Your task to perform on an android device: Play the new Demi Lovato video on YouTube Image 0: 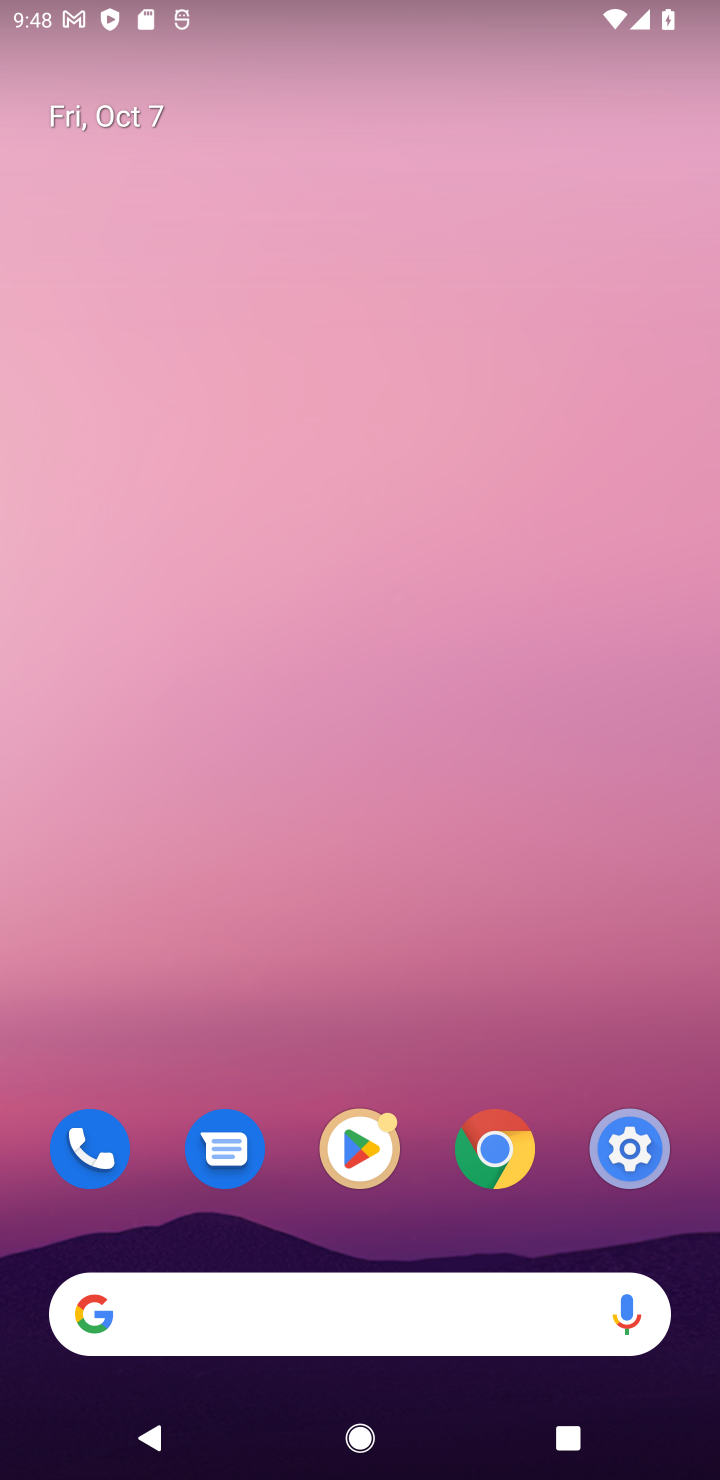
Step 0: drag from (410, 1223) to (340, 287)
Your task to perform on an android device: Play the new Demi Lovato video on YouTube Image 1: 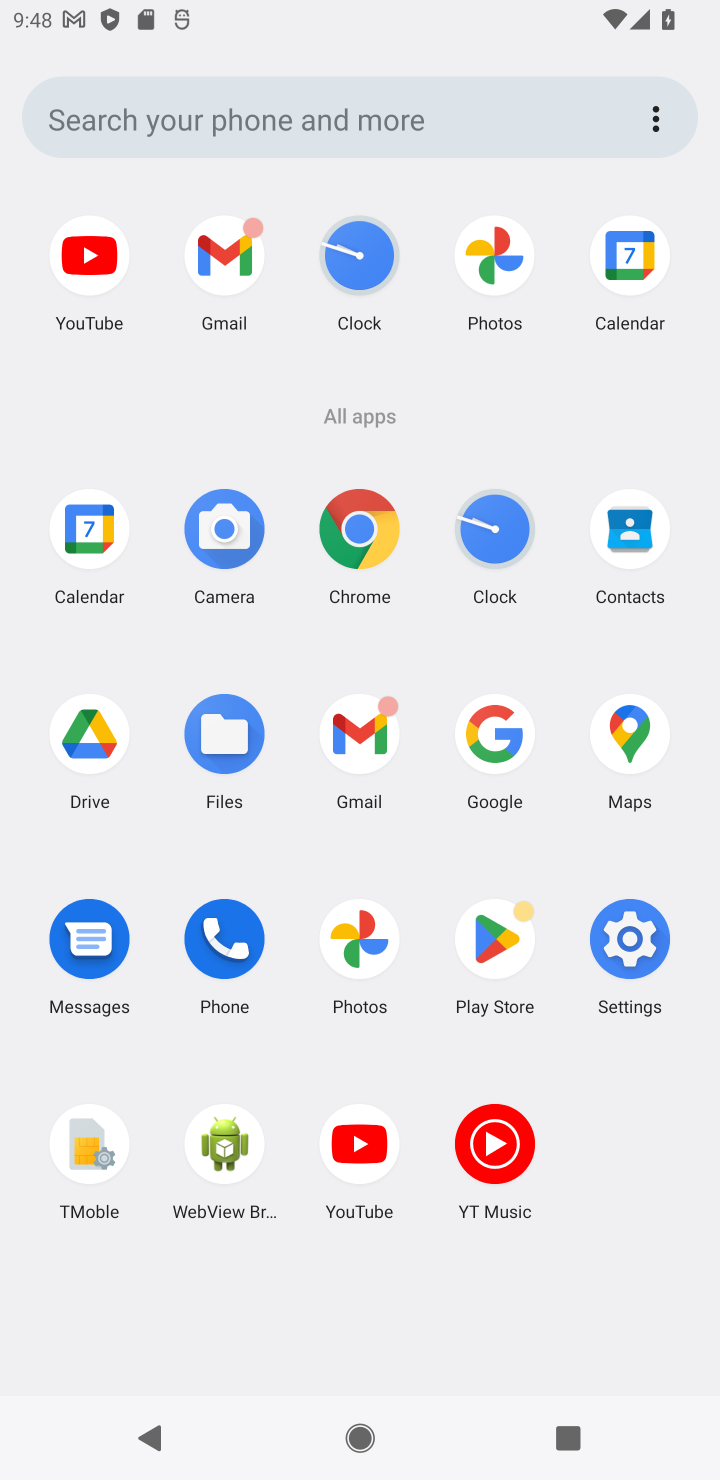
Step 1: click (89, 281)
Your task to perform on an android device: Play the new Demi Lovato video on YouTube Image 2: 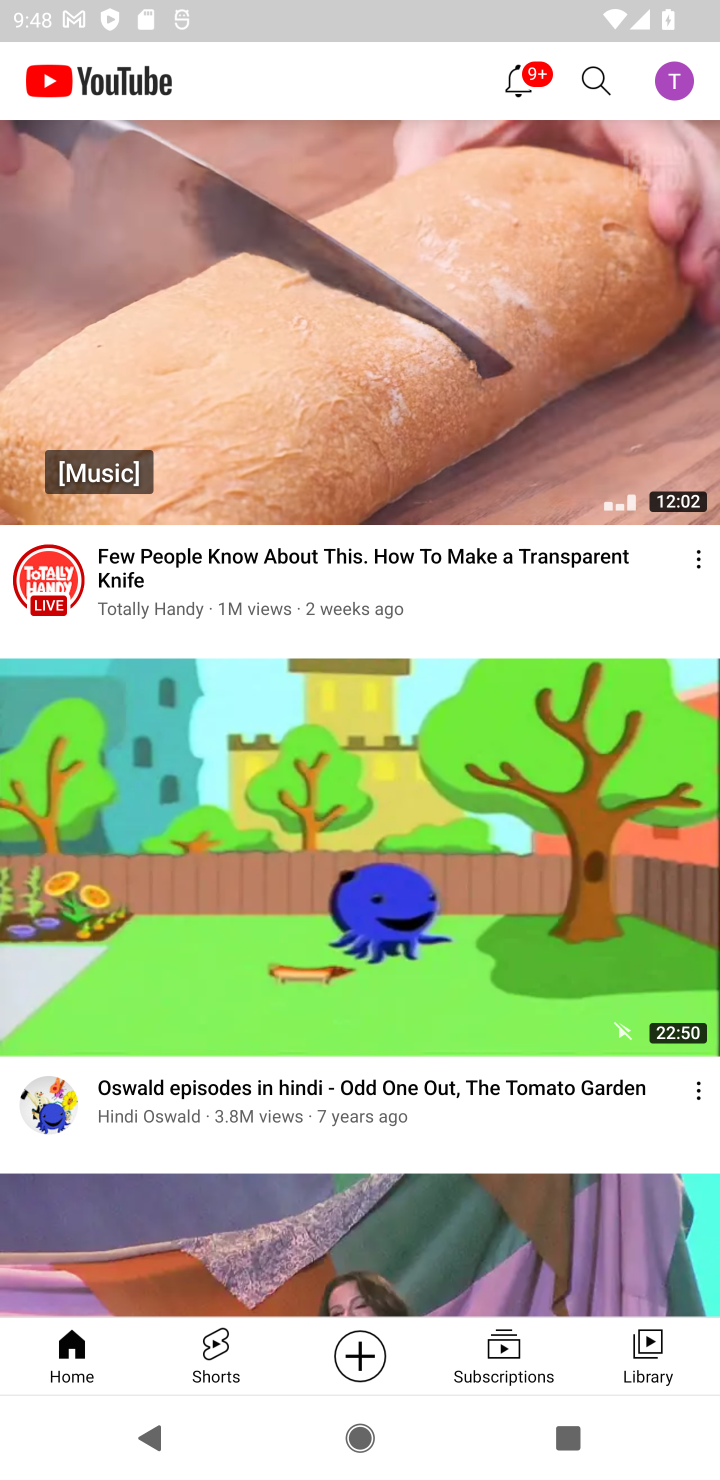
Step 2: click (582, 105)
Your task to perform on an android device: Play the new Demi Lovato video on YouTube Image 3: 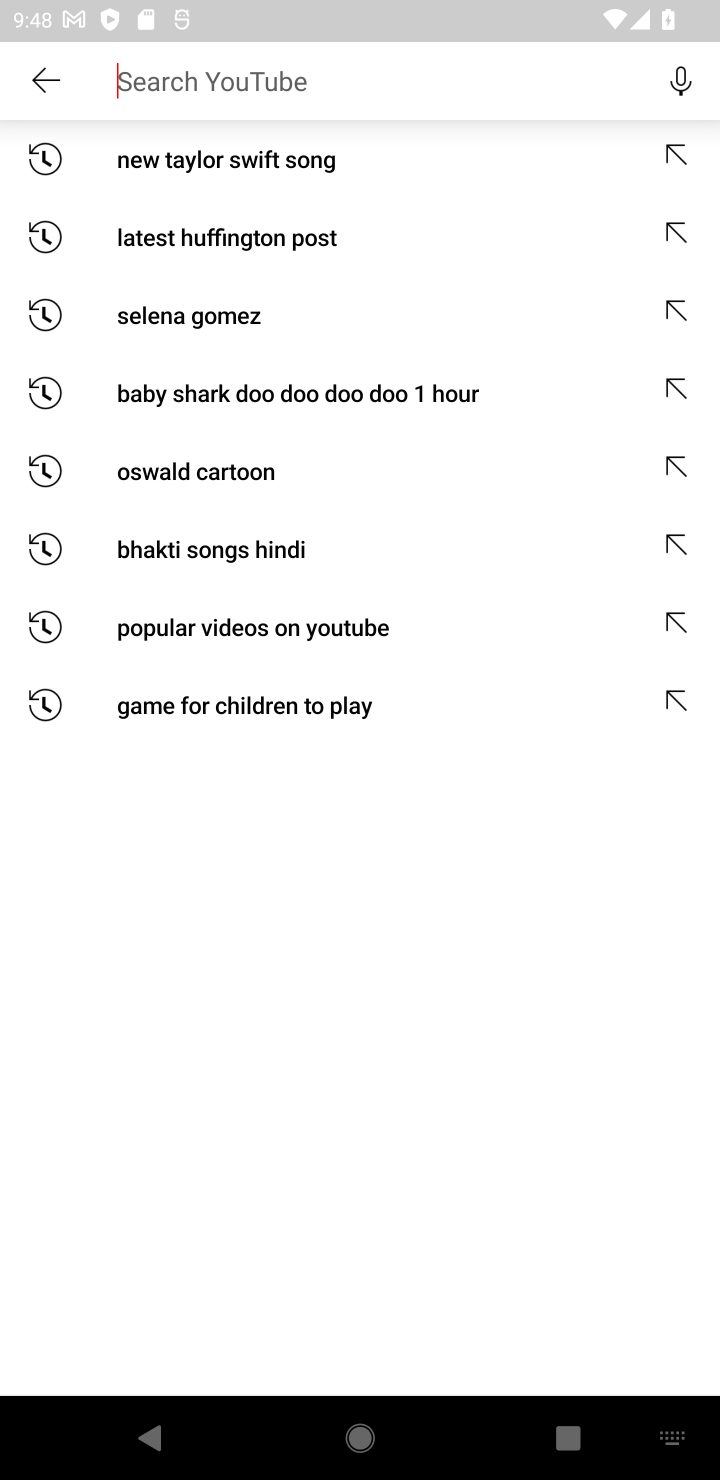
Step 3: type "Demi Lovato"
Your task to perform on an android device: Play the new Demi Lovato video on YouTube Image 4: 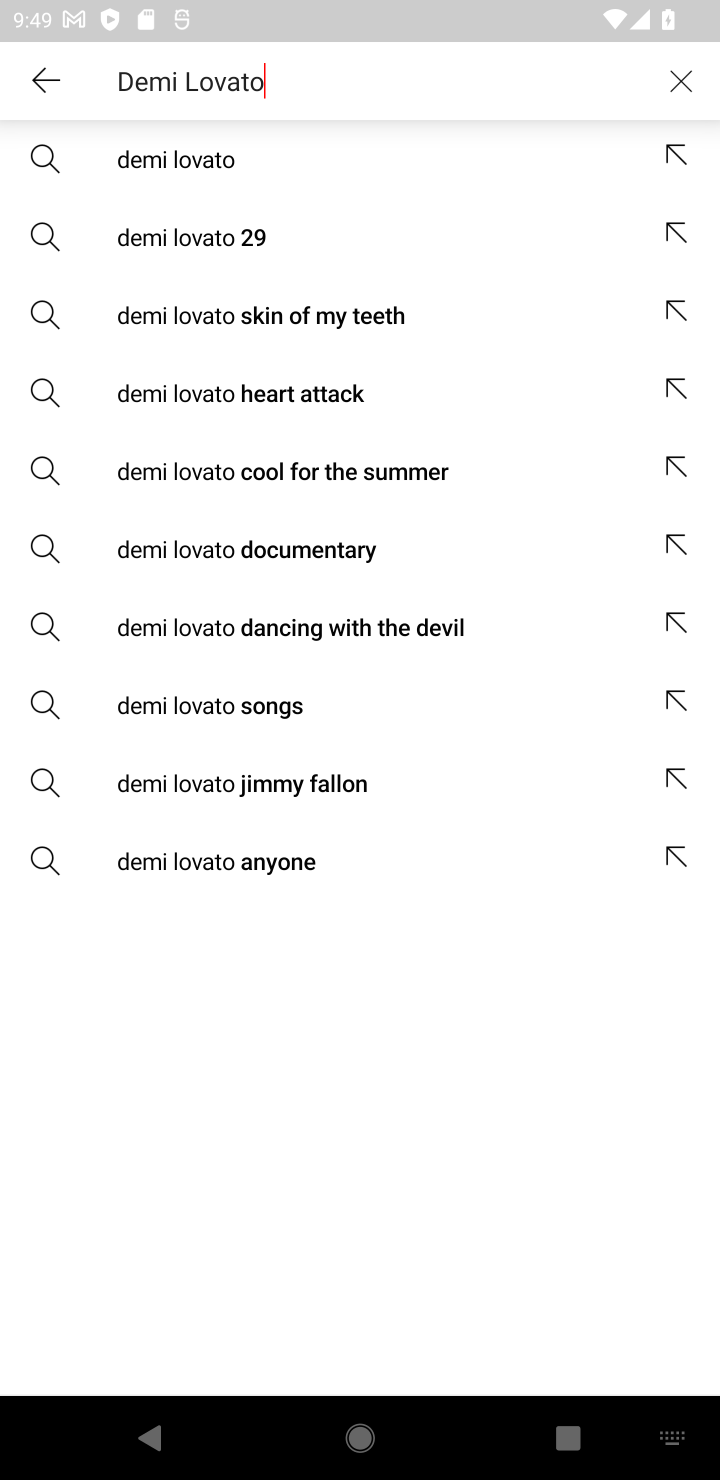
Step 4: click (239, 132)
Your task to perform on an android device: Play the new Demi Lovato video on YouTube Image 5: 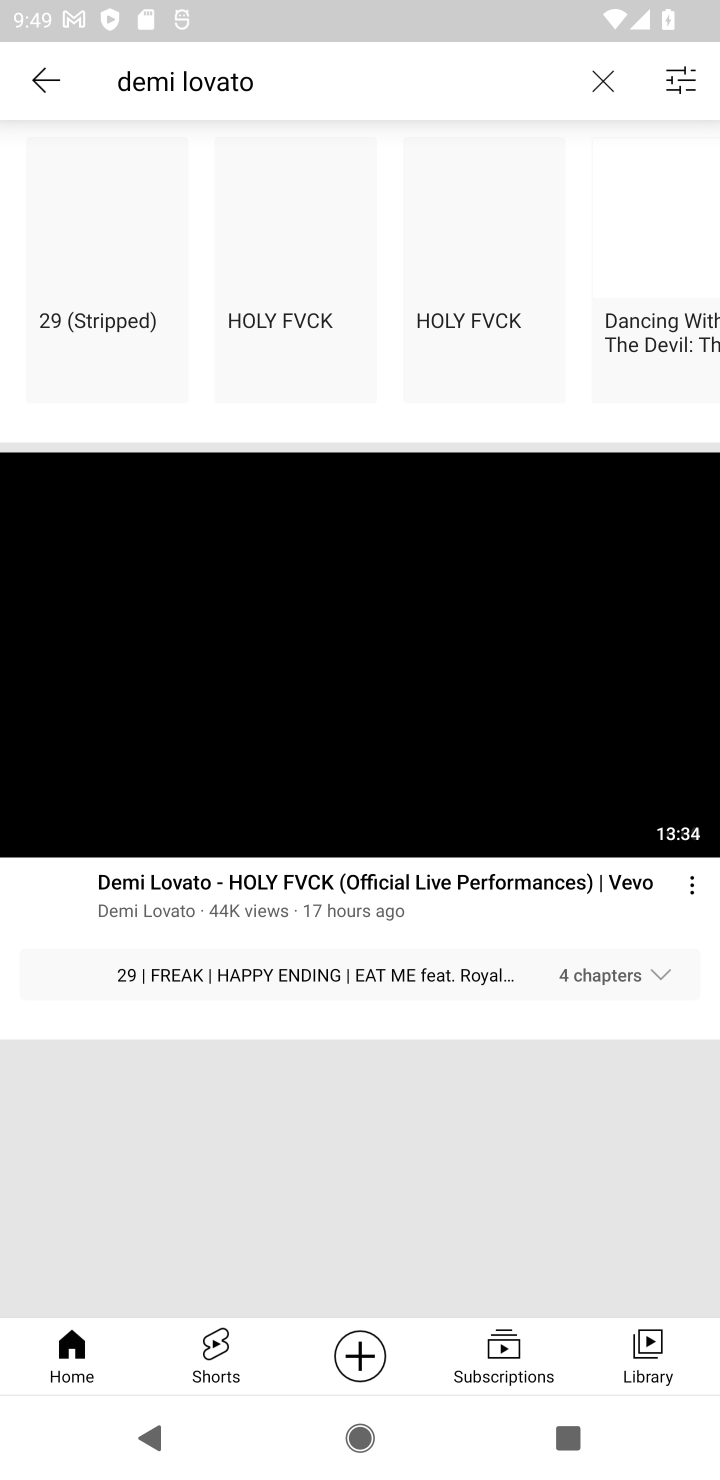
Step 5: task complete